Your task to perform on an android device: change the clock display to show seconds Image 0: 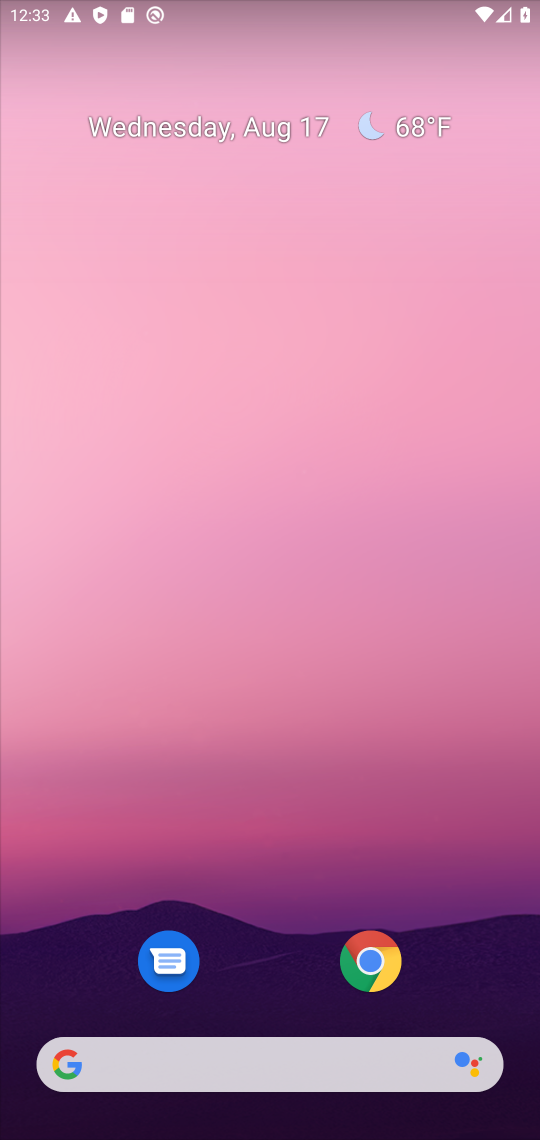
Step 0: drag from (261, 866) to (328, 141)
Your task to perform on an android device: change the clock display to show seconds Image 1: 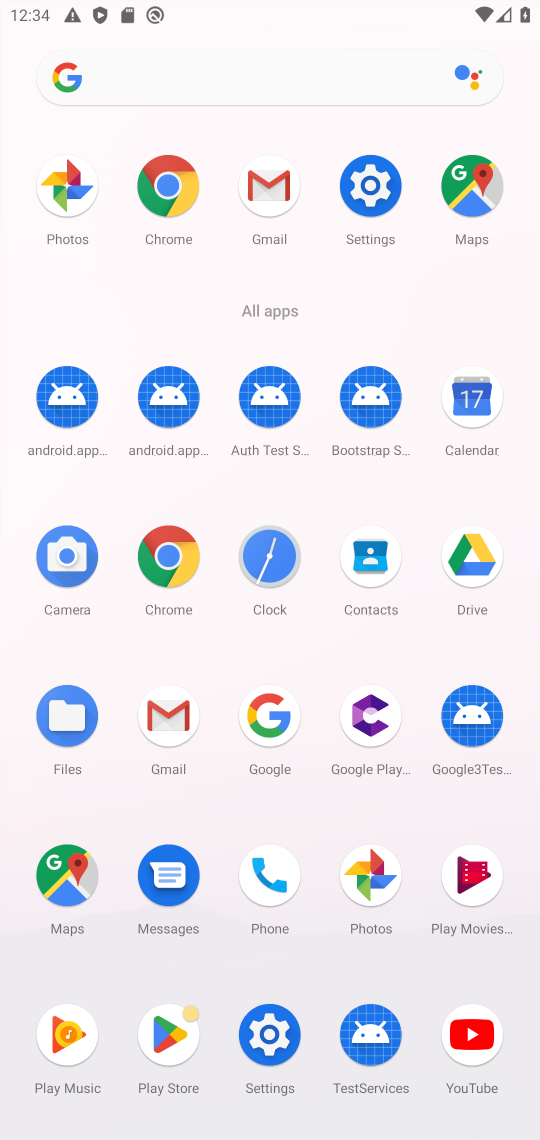
Step 1: click (277, 589)
Your task to perform on an android device: change the clock display to show seconds Image 2: 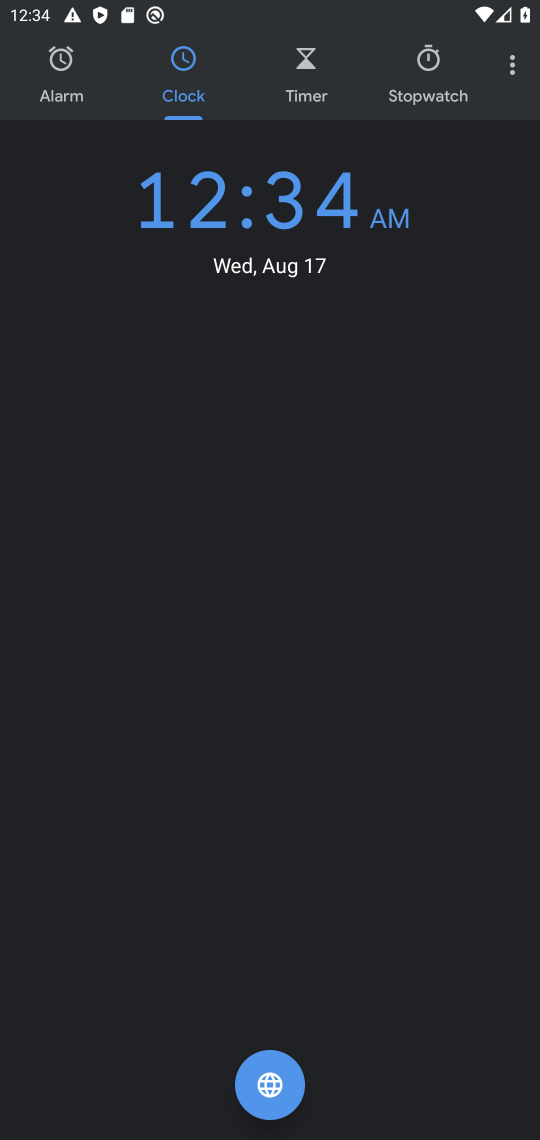
Step 2: click (508, 87)
Your task to perform on an android device: change the clock display to show seconds Image 3: 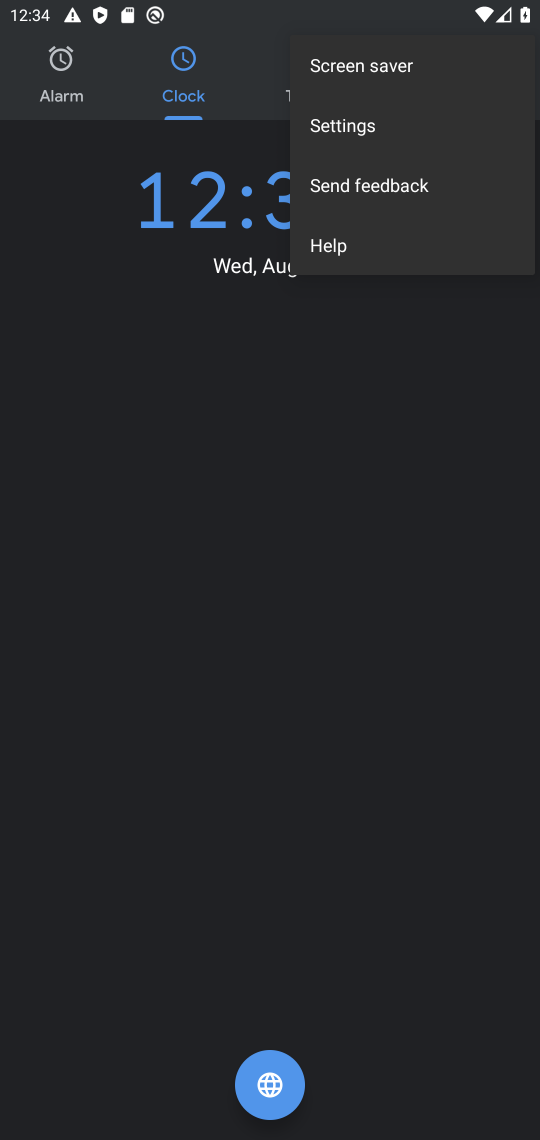
Step 3: click (328, 148)
Your task to perform on an android device: change the clock display to show seconds Image 4: 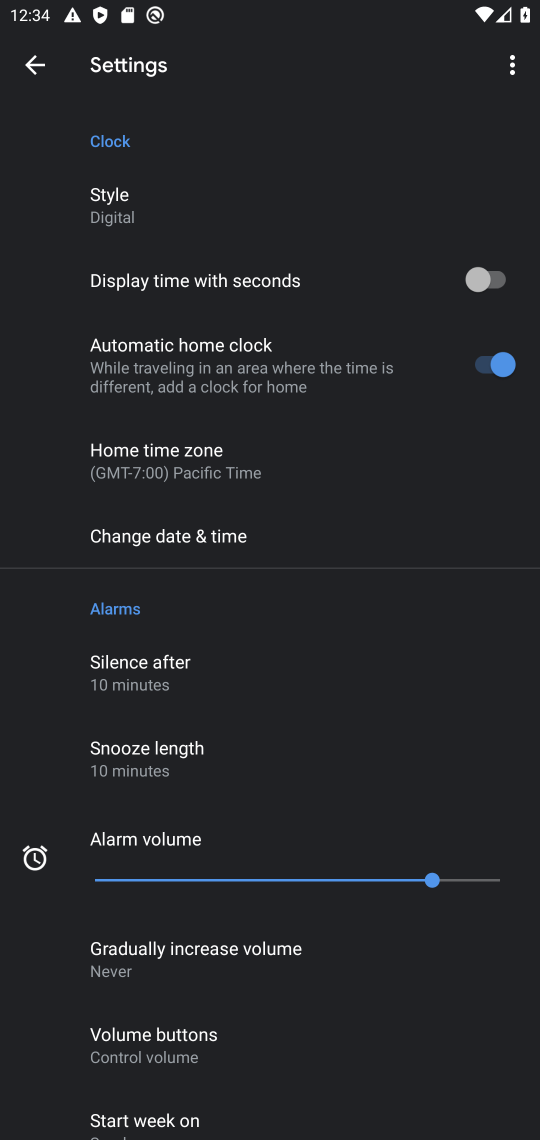
Step 4: click (501, 279)
Your task to perform on an android device: change the clock display to show seconds Image 5: 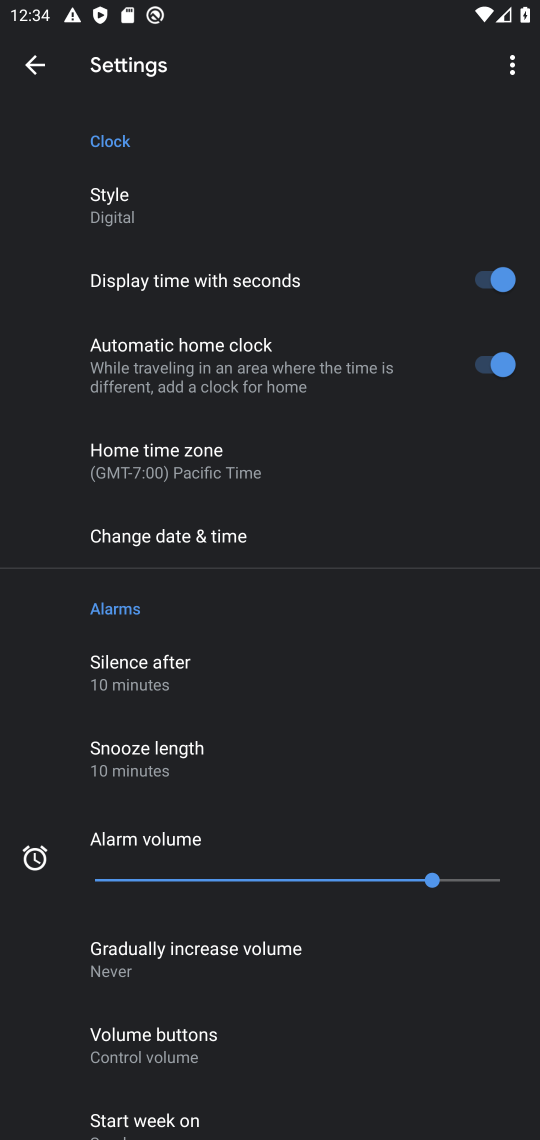
Step 5: task complete